Your task to perform on an android device: Go to Google maps Image 0: 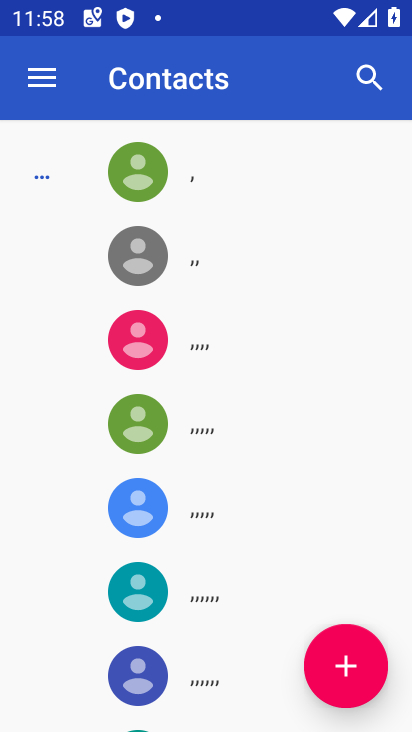
Step 0: press home button
Your task to perform on an android device: Go to Google maps Image 1: 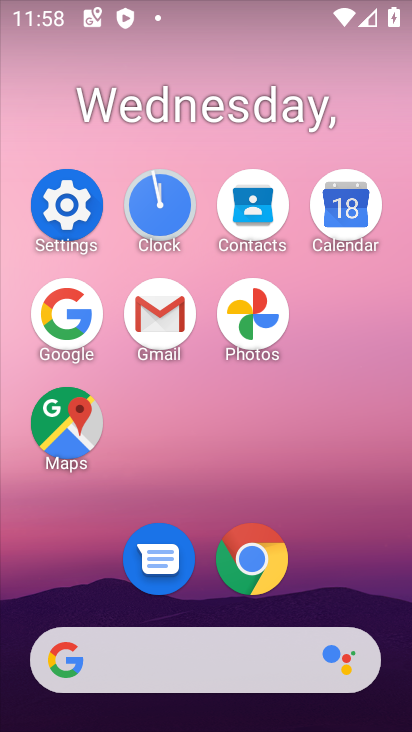
Step 1: click (79, 445)
Your task to perform on an android device: Go to Google maps Image 2: 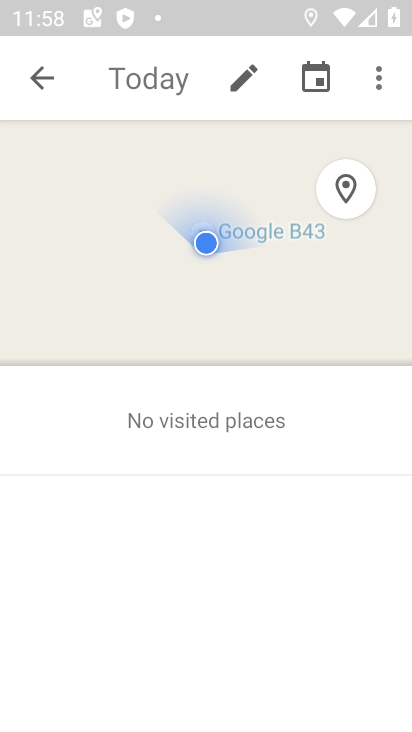
Step 2: task complete